Your task to perform on an android device: turn off priority inbox in the gmail app Image 0: 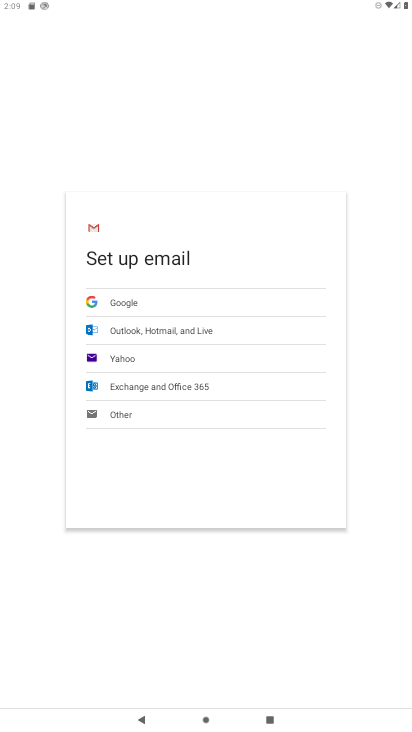
Step 0: press home button
Your task to perform on an android device: turn off priority inbox in the gmail app Image 1: 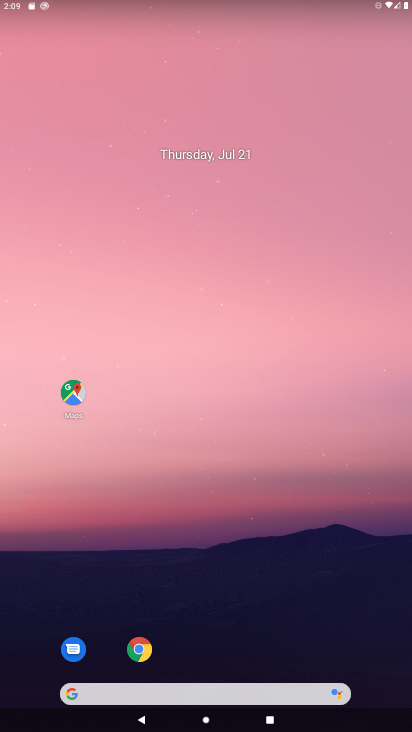
Step 1: drag from (276, 589) to (133, 6)
Your task to perform on an android device: turn off priority inbox in the gmail app Image 2: 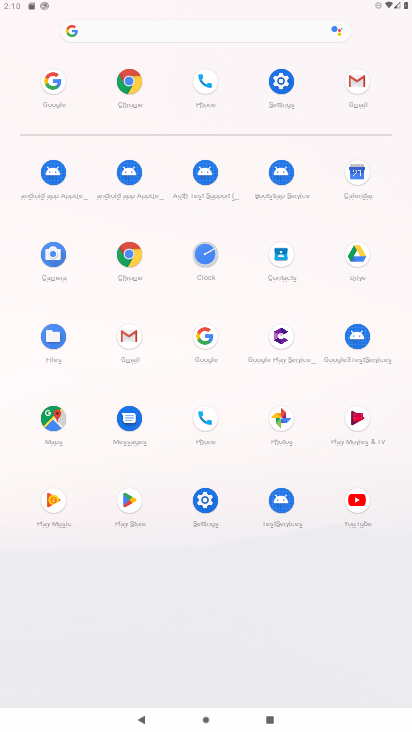
Step 2: click (362, 89)
Your task to perform on an android device: turn off priority inbox in the gmail app Image 3: 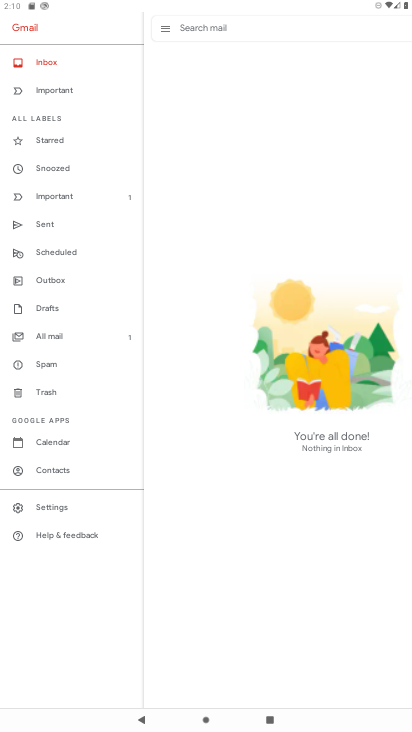
Step 3: click (67, 504)
Your task to perform on an android device: turn off priority inbox in the gmail app Image 4: 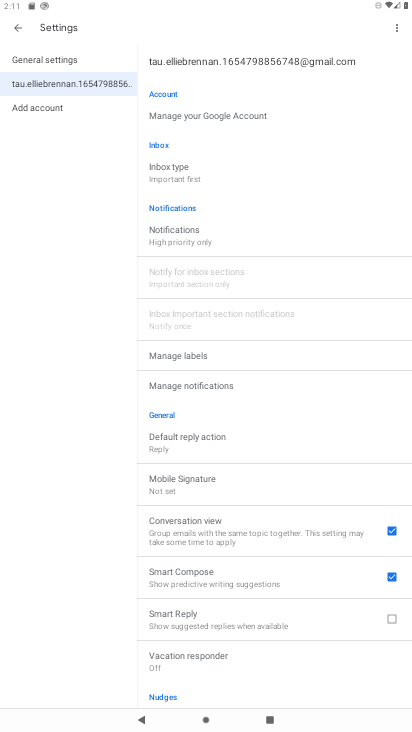
Step 4: click (167, 169)
Your task to perform on an android device: turn off priority inbox in the gmail app Image 5: 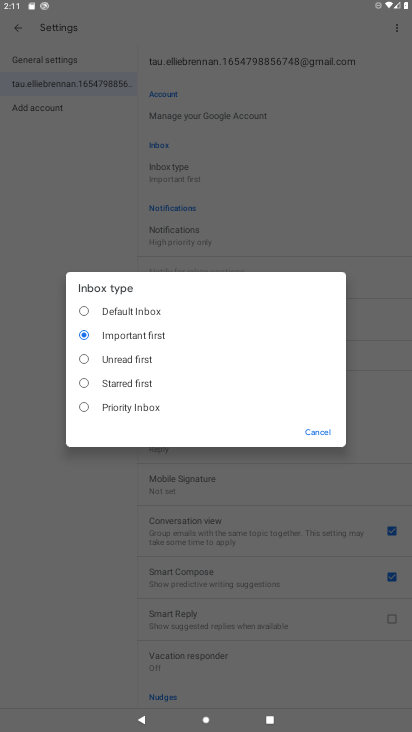
Step 5: task complete